Your task to perform on an android device: open a new tab in the chrome app Image 0: 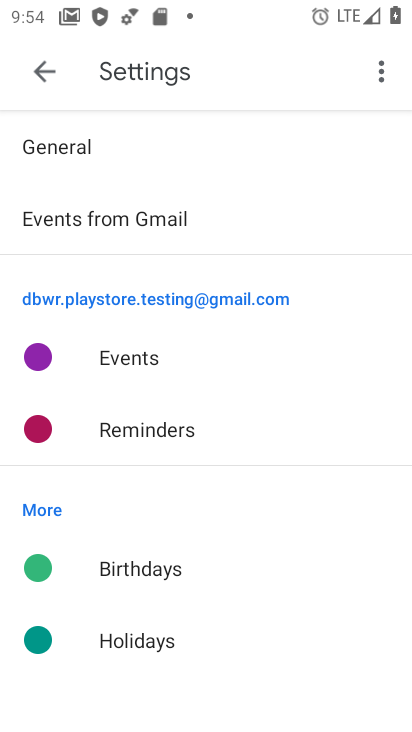
Step 0: press back button
Your task to perform on an android device: open a new tab in the chrome app Image 1: 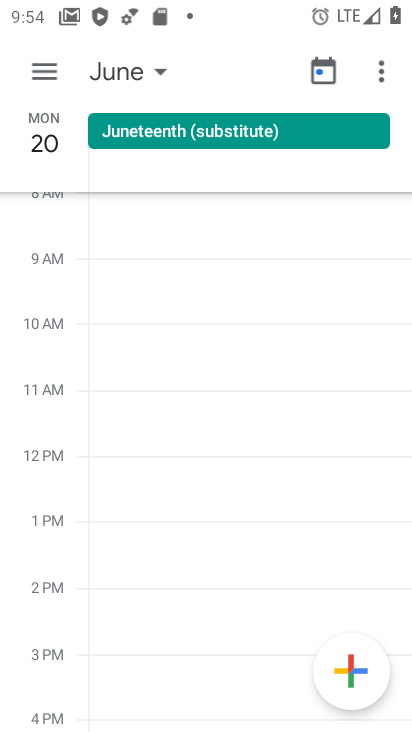
Step 1: press back button
Your task to perform on an android device: open a new tab in the chrome app Image 2: 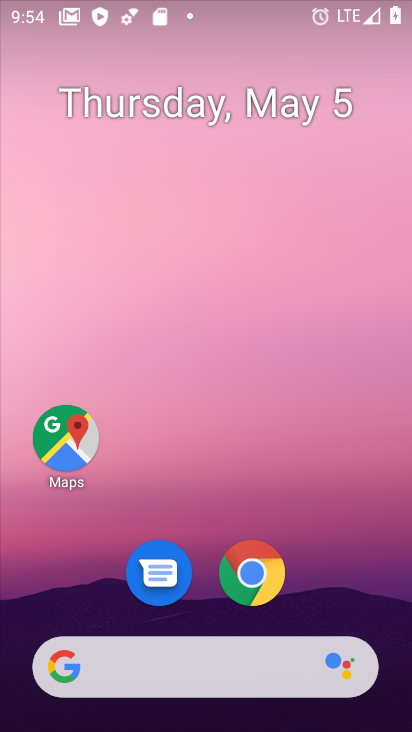
Step 2: click (228, 573)
Your task to perform on an android device: open a new tab in the chrome app Image 3: 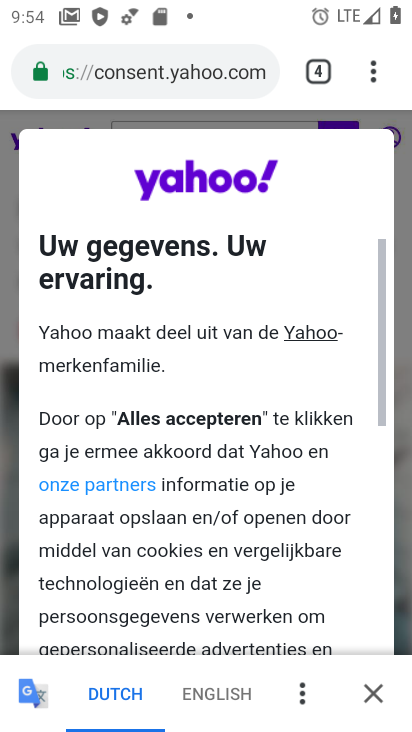
Step 3: task complete